Your task to perform on an android device: add a label to a message in the gmail app Image 0: 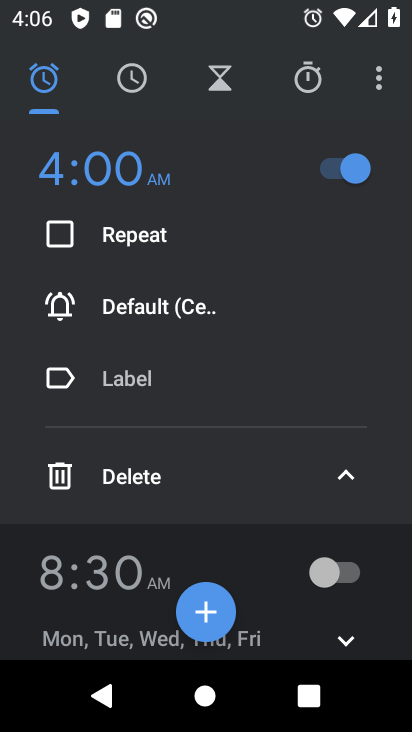
Step 0: press home button
Your task to perform on an android device: add a label to a message in the gmail app Image 1: 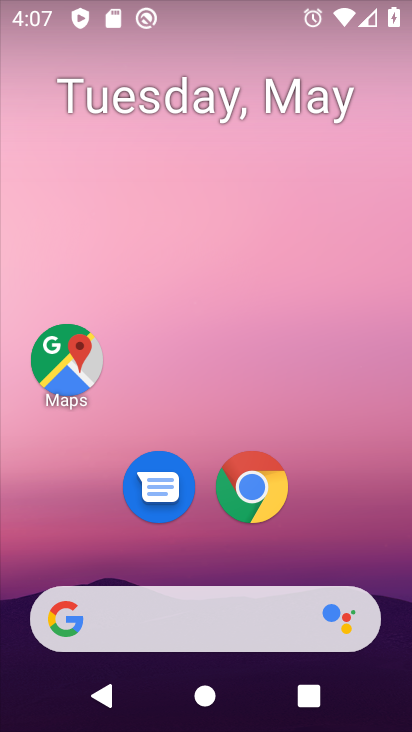
Step 1: drag from (324, 533) to (347, 9)
Your task to perform on an android device: add a label to a message in the gmail app Image 2: 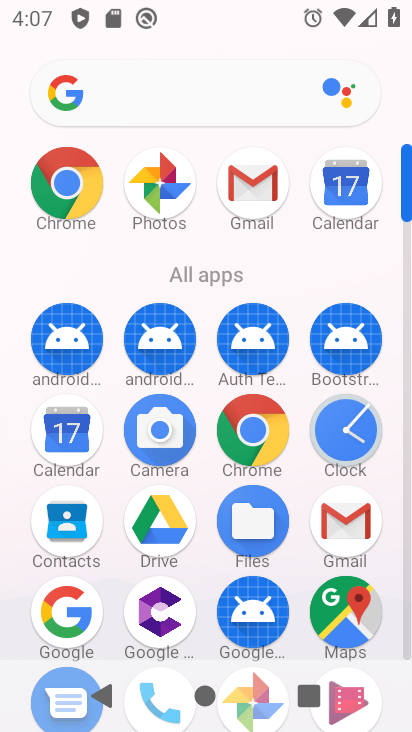
Step 2: click (257, 180)
Your task to perform on an android device: add a label to a message in the gmail app Image 3: 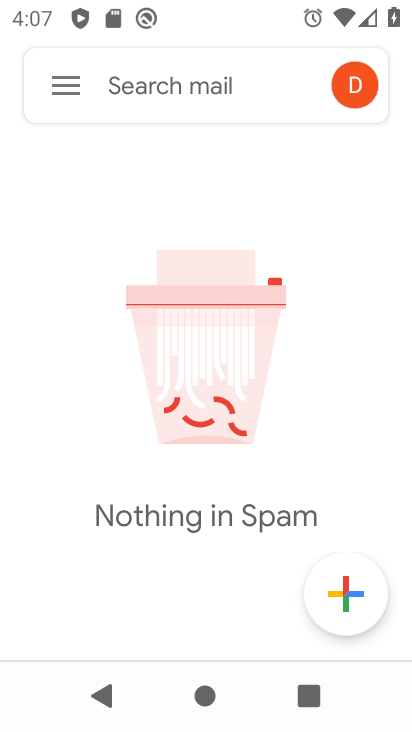
Step 3: click (63, 84)
Your task to perform on an android device: add a label to a message in the gmail app Image 4: 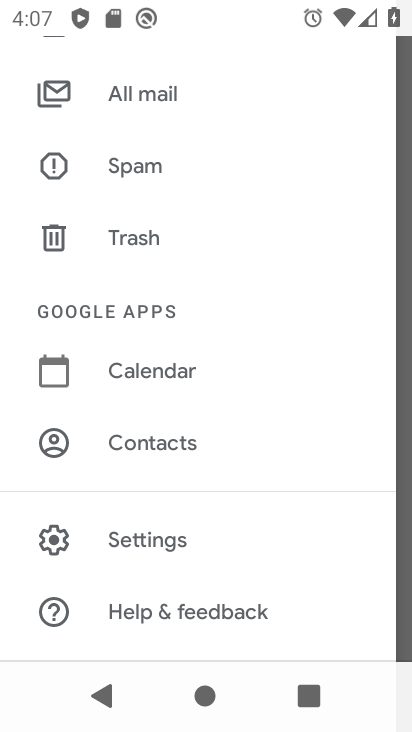
Step 4: click (163, 106)
Your task to perform on an android device: add a label to a message in the gmail app Image 5: 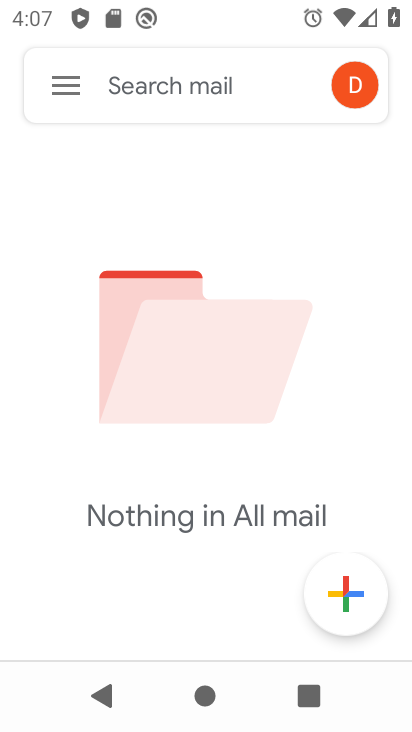
Step 5: task complete